Your task to perform on an android device: turn on bluetooth scan Image 0: 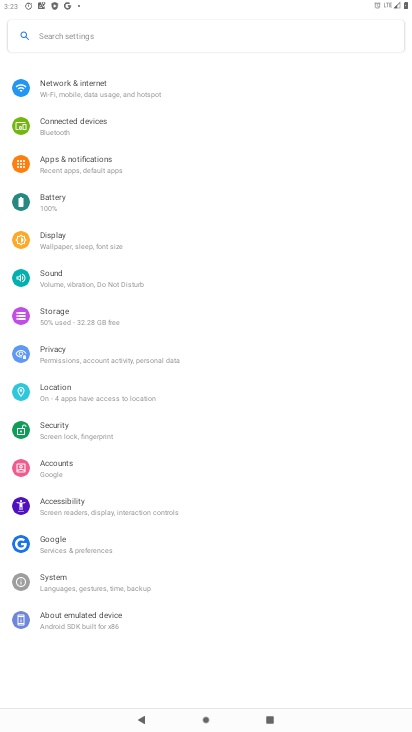
Step 0: drag from (259, 573) to (251, 51)
Your task to perform on an android device: turn on bluetooth scan Image 1: 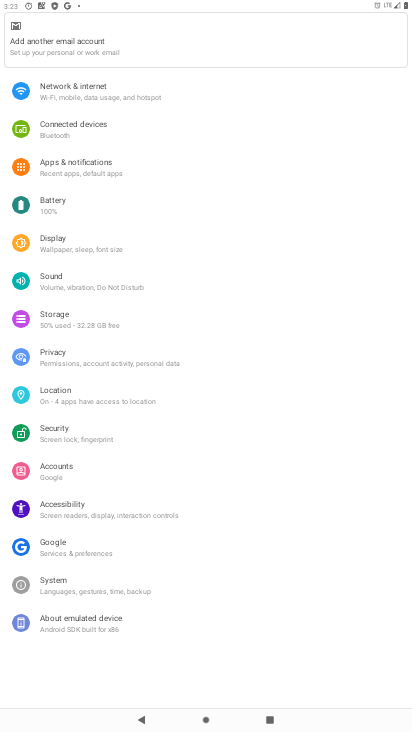
Step 1: click (77, 399)
Your task to perform on an android device: turn on bluetooth scan Image 2: 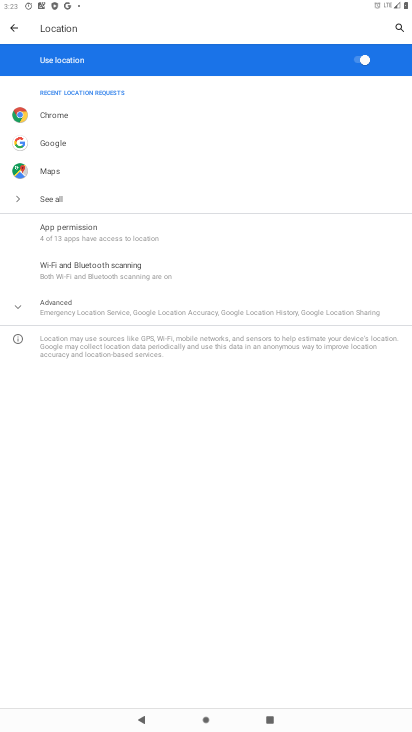
Step 2: click (112, 270)
Your task to perform on an android device: turn on bluetooth scan Image 3: 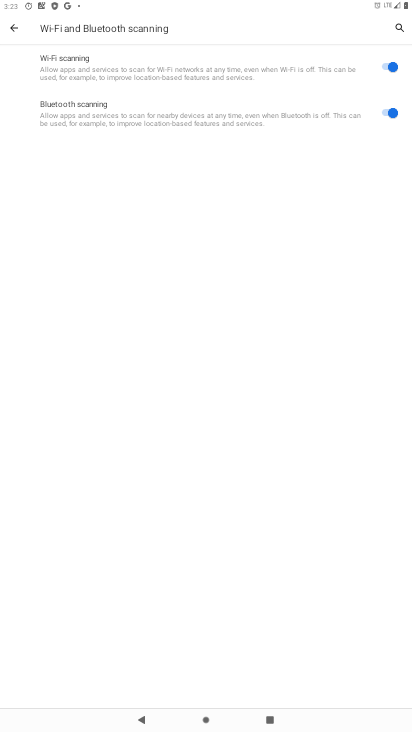
Step 3: task complete